Your task to perform on an android device: turn on wifi Image 0: 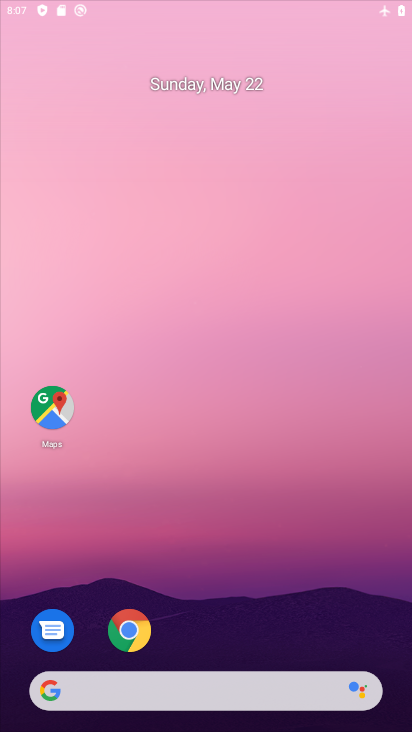
Step 0: click (126, 627)
Your task to perform on an android device: turn on wifi Image 1: 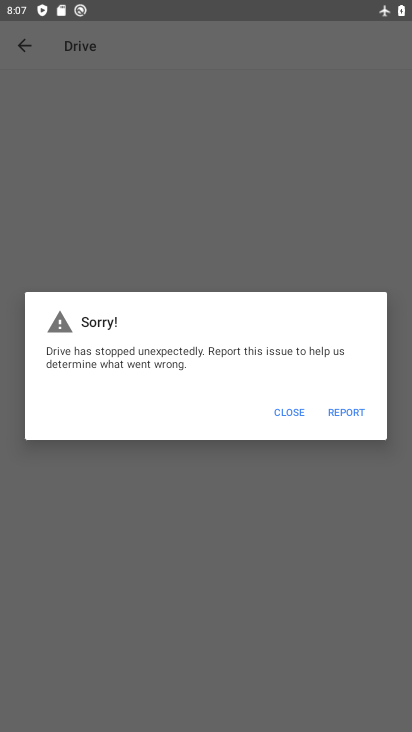
Step 1: press home button
Your task to perform on an android device: turn on wifi Image 2: 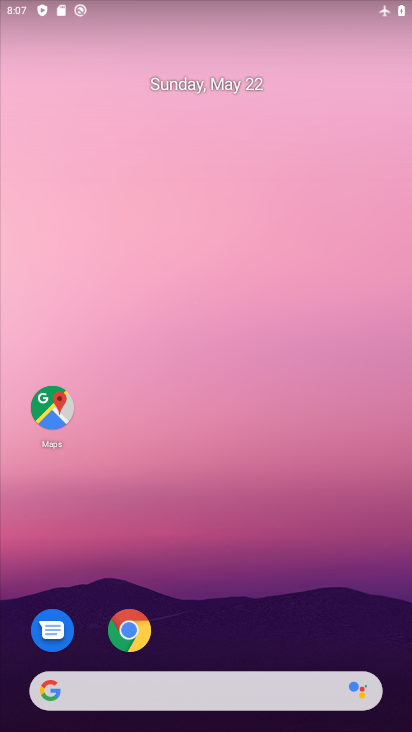
Step 2: drag from (372, 645) to (257, 22)
Your task to perform on an android device: turn on wifi Image 3: 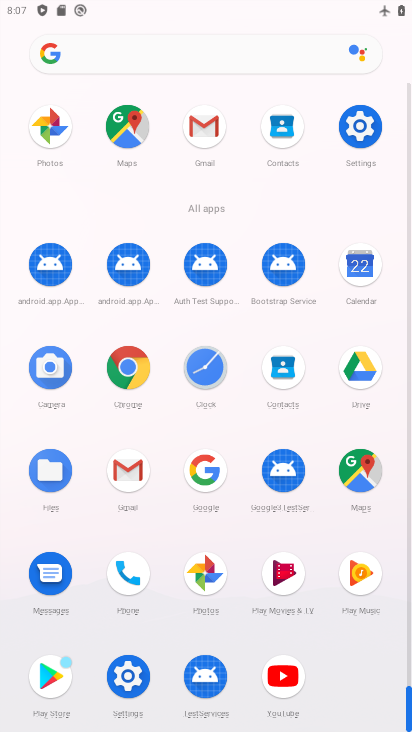
Step 3: click (126, 675)
Your task to perform on an android device: turn on wifi Image 4: 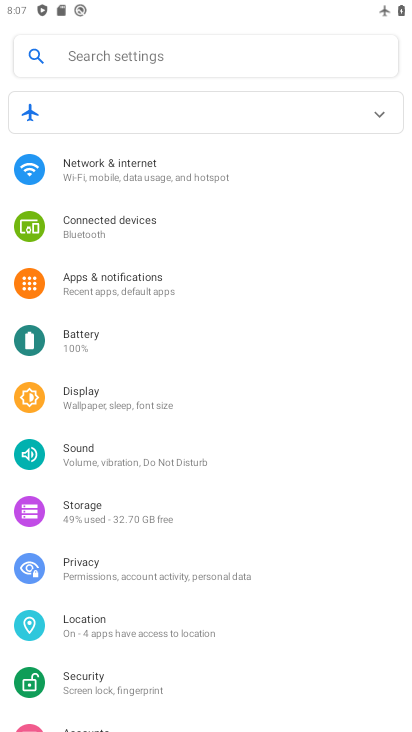
Step 4: click (116, 165)
Your task to perform on an android device: turn on wifi Image 5: 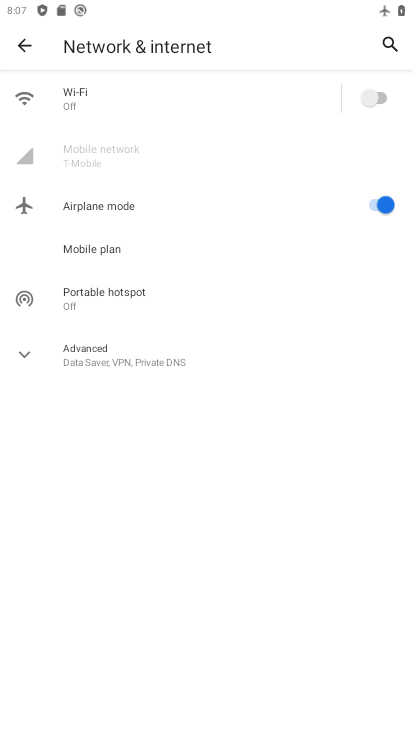
Step 5: click (380, 94)
Your task to perform on an android device: turn on wifi Image 6: 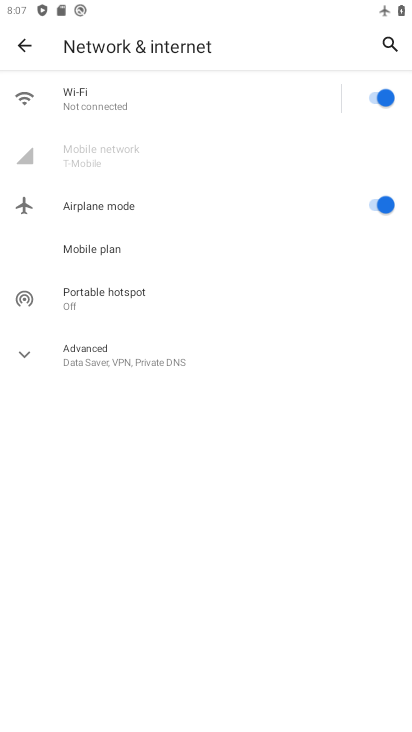
Step 6: task complete